Your task to perform on an android device: Open my contact list Image 0: 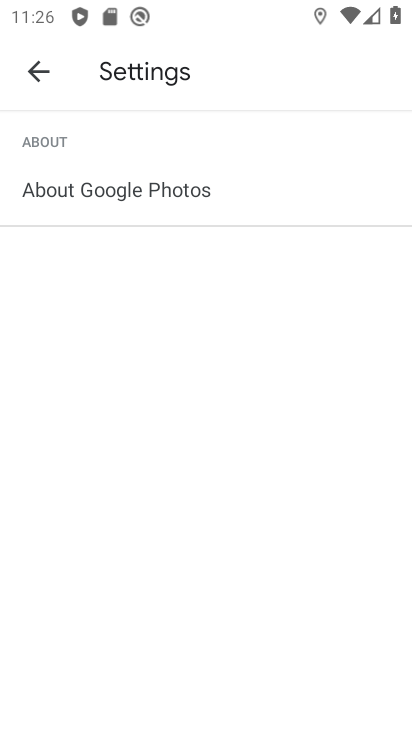
Step 0: press home button
Your task to perform on an android device: Open my contact list Image 1: 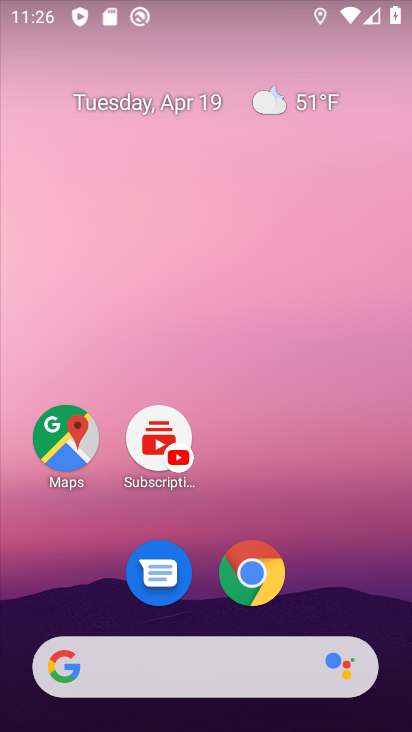
Step 1: drag from (314, 598) to (294, 132)
Your task to perform on an android device: Open my contact list Image 2: 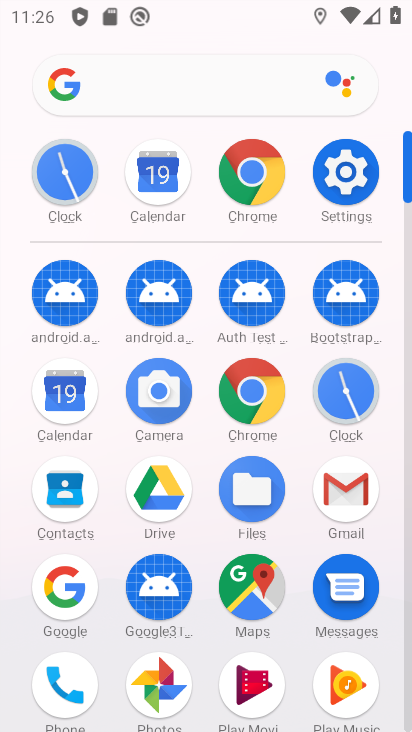
Step 2: click (54, 488)
Your task to perform on an android device: Open my contact list Image 3: 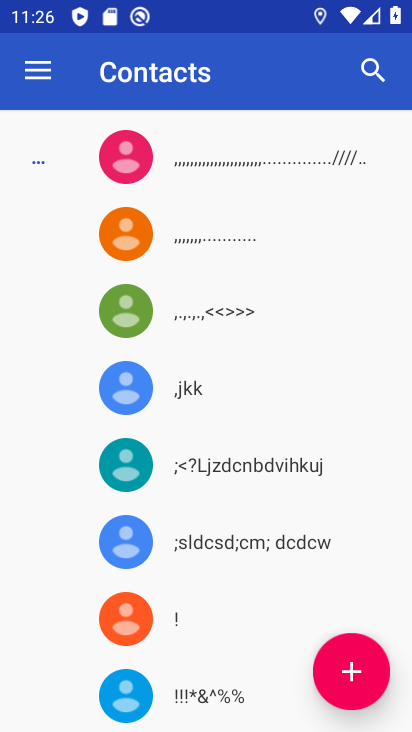
Step 3: task complete